Your task to perform on an android device: Open Yahoo.com Image 0: 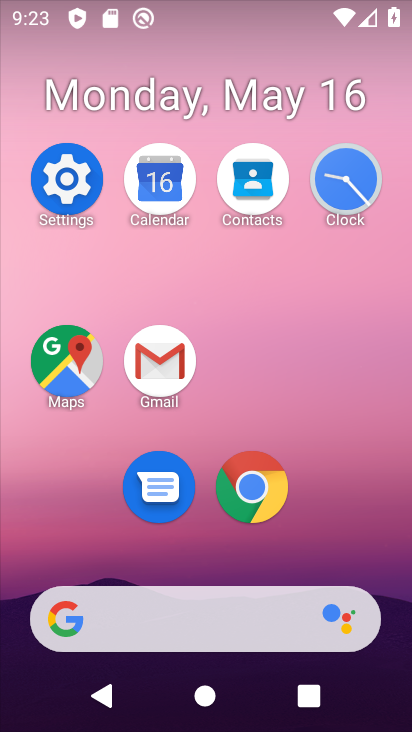
Step 0: click (257, 472)
Your task to perform on an android device: Open Yahoo.com Image 1: 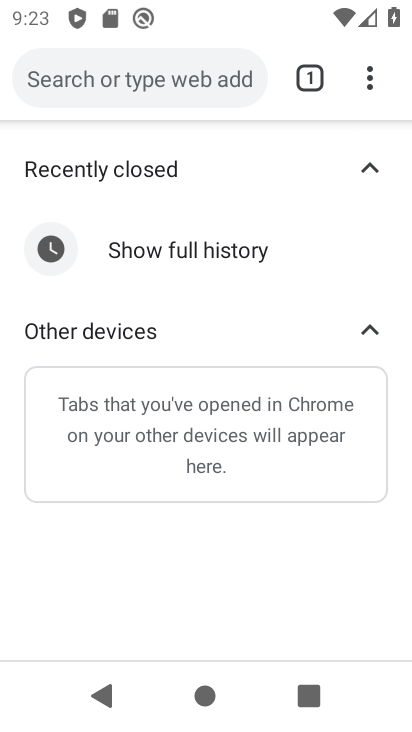
Step 1: click (311, 60)
Your task to perform on an android device: Open Yahoo.com Image 2: 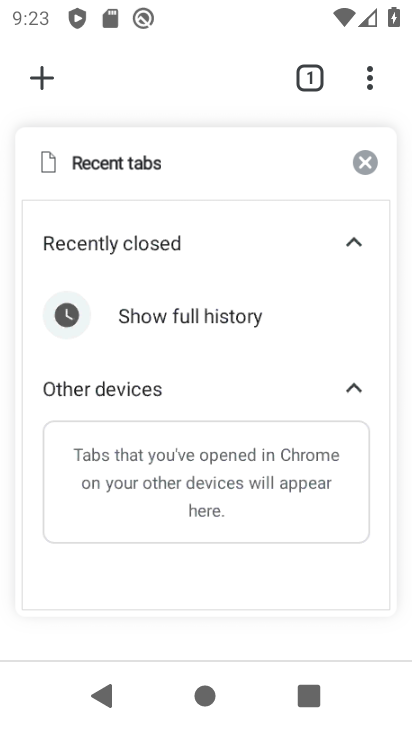
Step 2: click (50, 78)
Your task to perform on an android device: Open Yahoo.com Image 3: 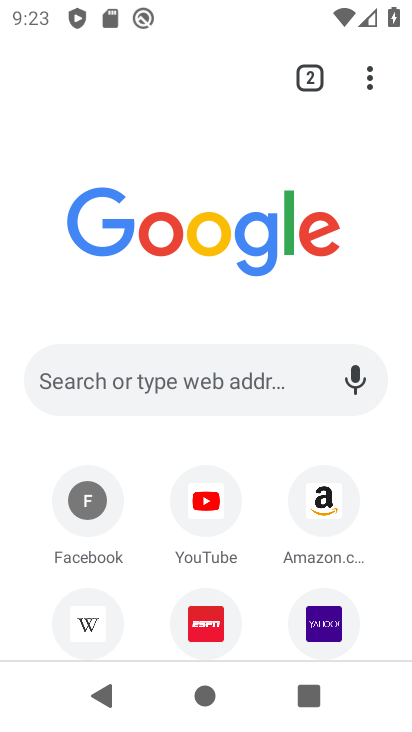
Step 3: click (319, 627)
Your task to perform on an android device: Open Yahoo.com Image 4: 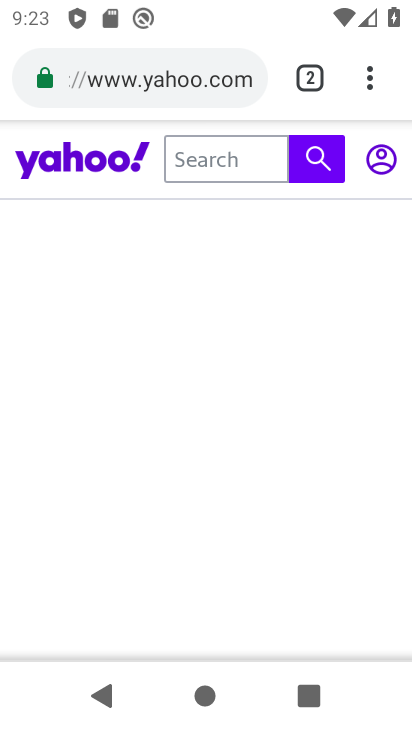
Step 4: task complete